Your task to perform on an android device: What's the weather today? Image 0: 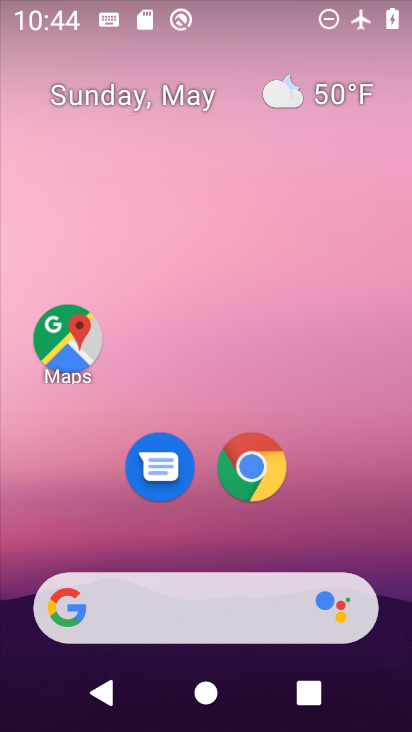
Step 0: drag from (212, 544) to (219, 174)
Your task to perform on an android device: What's the weather today? Image 1: 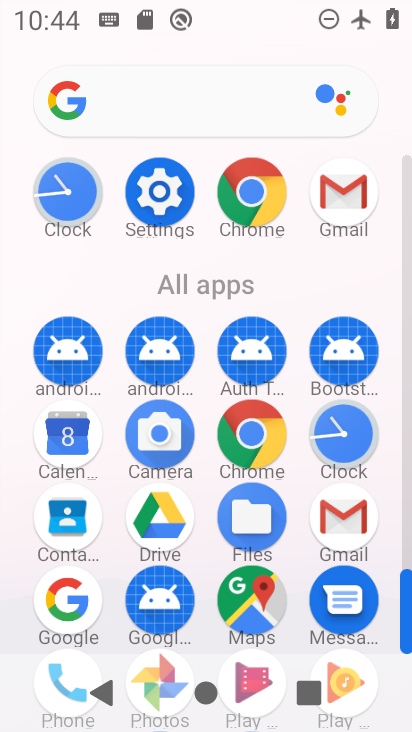
Step 1: click (71, 576)
Your task to perform on an android device: What's the weather today? Image 2: 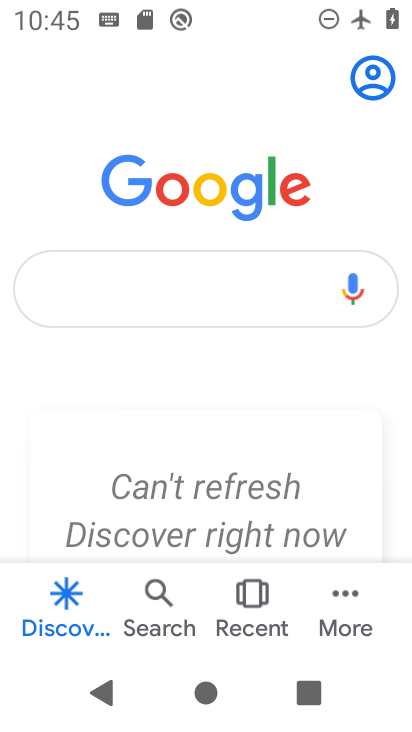
Step 2: task complete